Your task to perform on an android device: Check the settings for the Google Play Movies app Image 0: 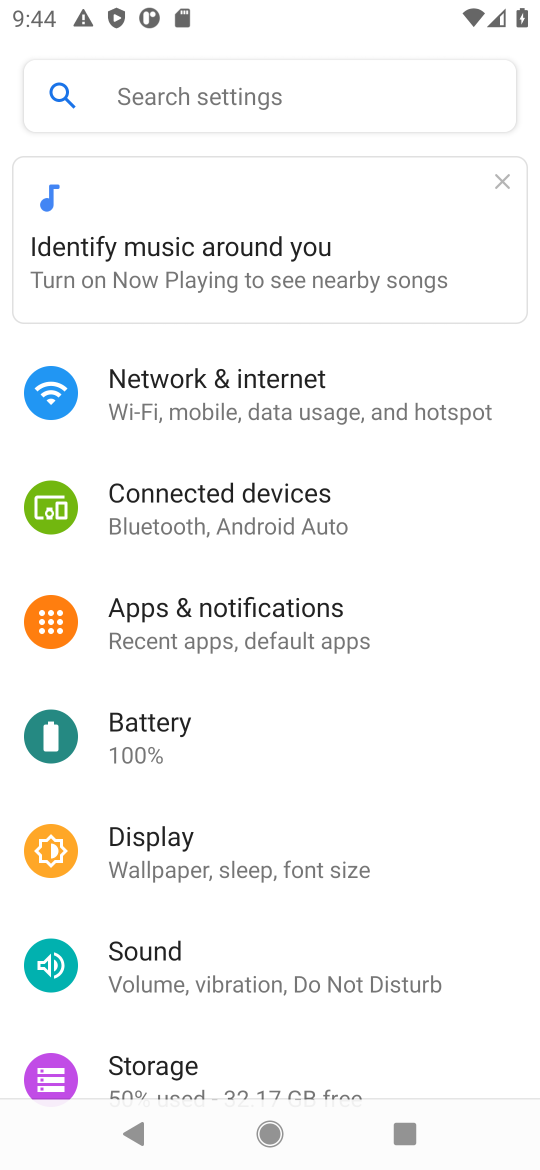
Step 0: press home button
Your task to perform on an android device: Check the settings for the Google Play Movies app Image 1: 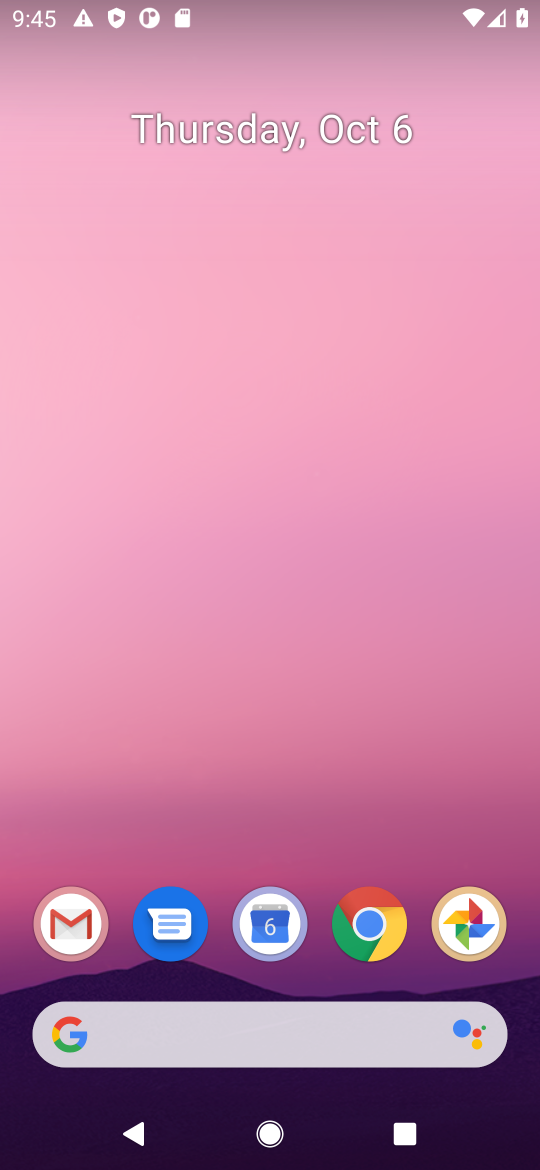
Step 1: drag from (281, 1030) to (519, 312)
Your task to perform on an android device: Check the settings for the Google Play Movies app Image 2: 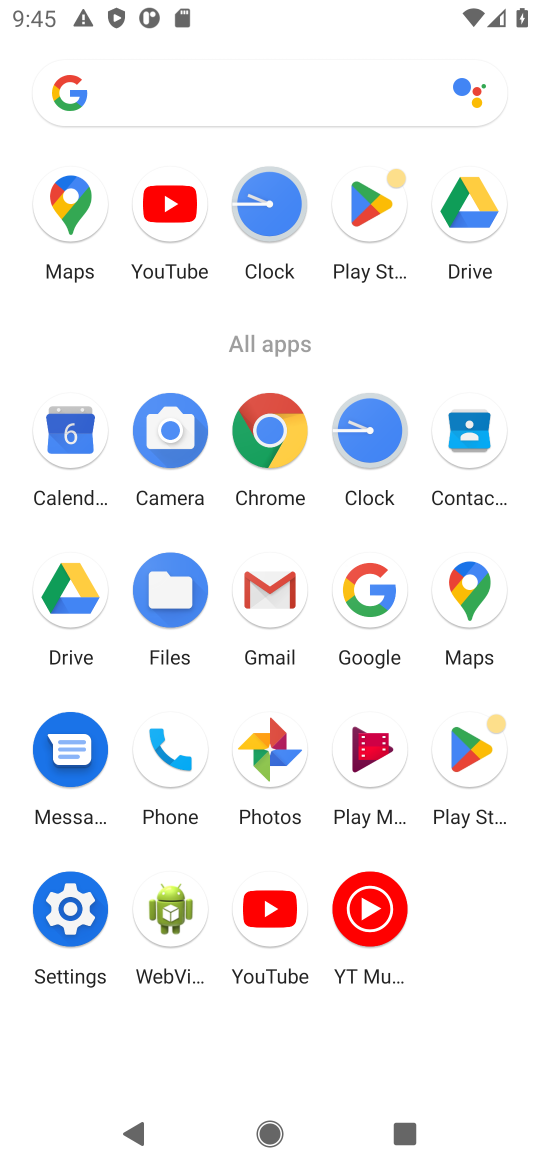
Step 2: click (371, 752)
Your task to perform on an android device: Check the settings for the Google Play Movies app Image 3: 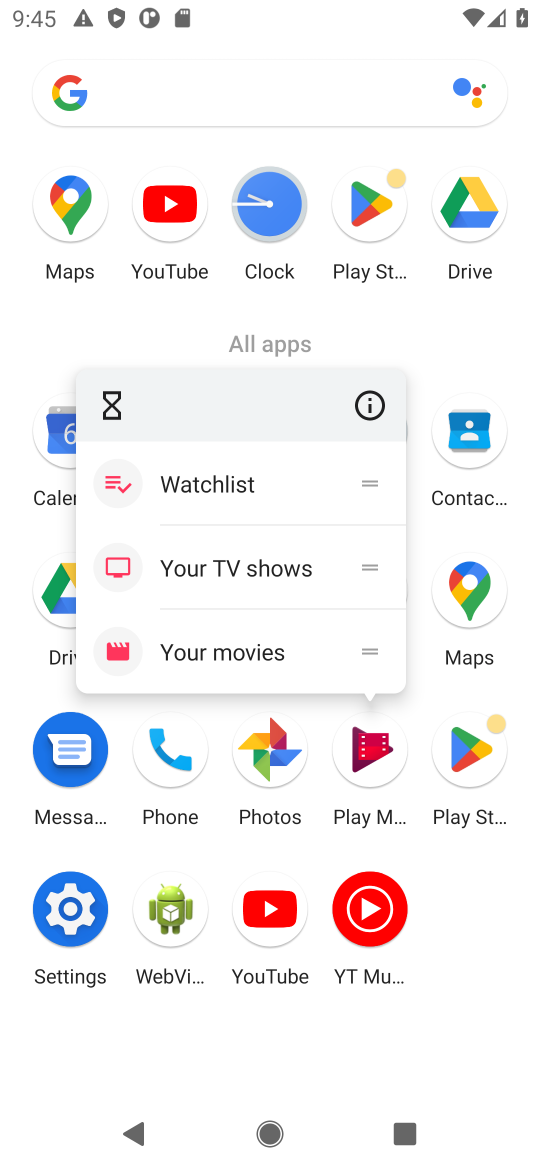
Step 3: click (362, 744)
Your task to perform on an android device: Check the settings for the Google Play Movies app Image 4: 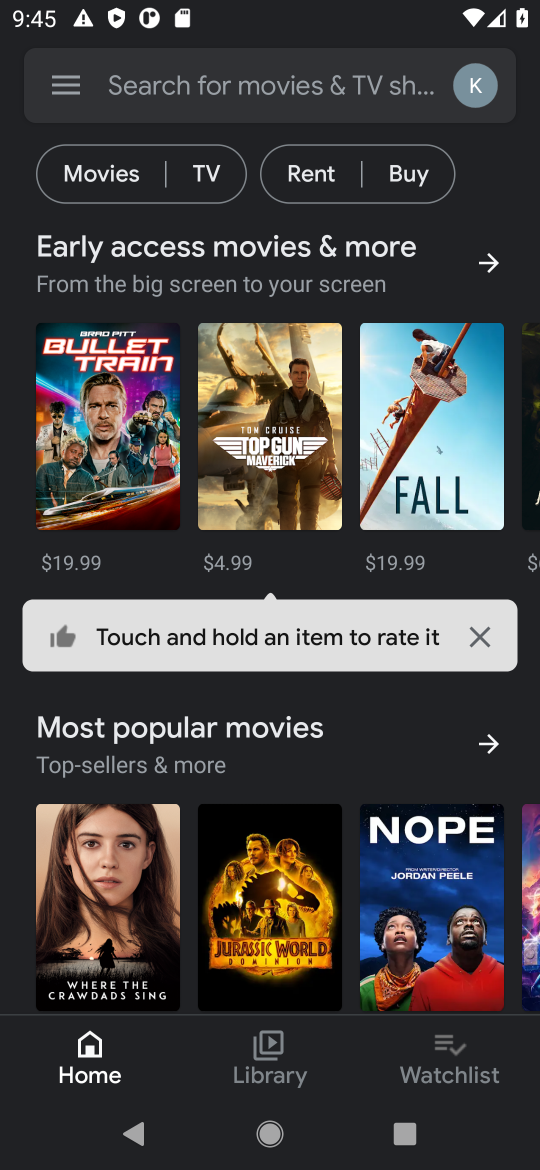
Step 4: click (53, 88)
Your task to perform on an android device: Check the settings for the Google Play Movies app Image 5: 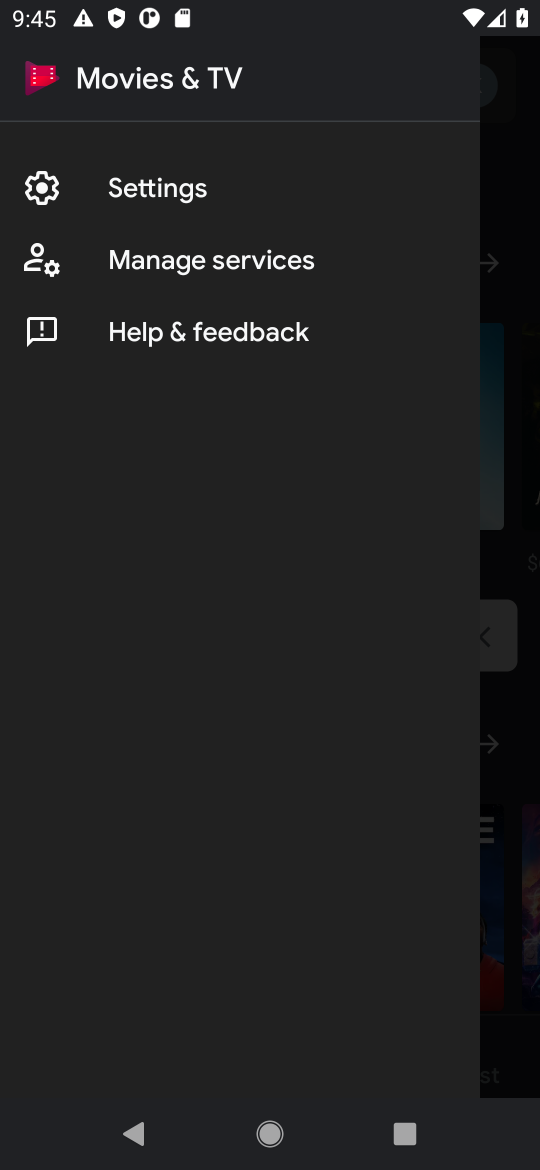
Step 5: click (133, 185)
Your task to perform on an android device: Check the settings for the Google Play Movies app Image 6: 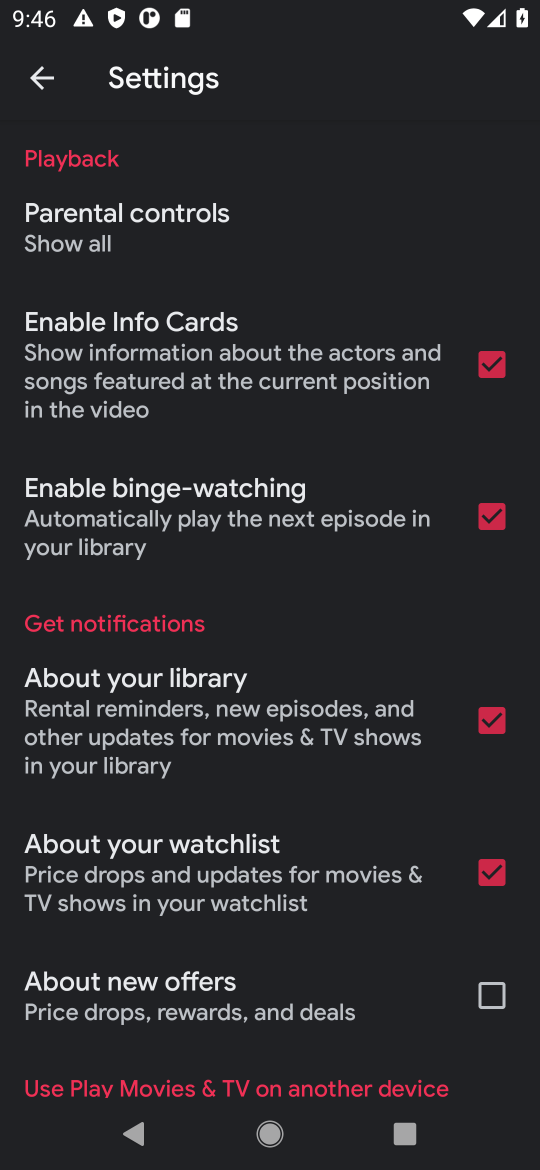
Step 6: task complete